Your task to perform on an android device: turn notification dots off Image 0: 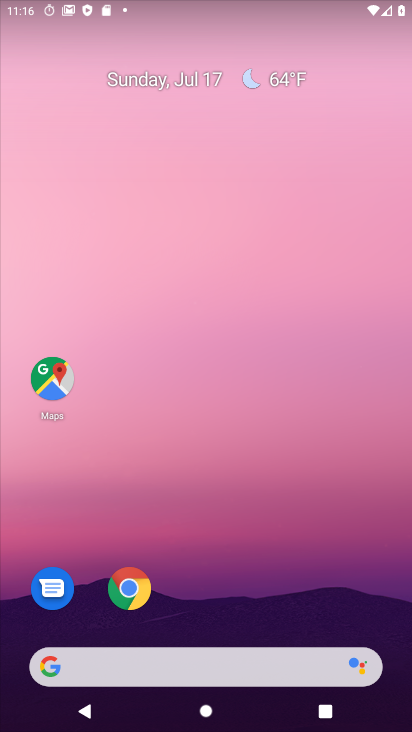
Step 0: drag from (210, 626) to (243, 294)
Your task to perform on an android device: turn notification dots off Image 1: 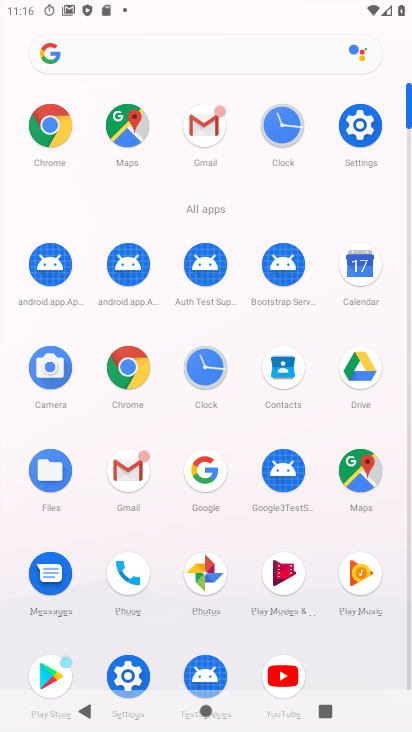
Step 1: click (124, 672)
Your task to perform on an android device: turn notification dots off Image 2: 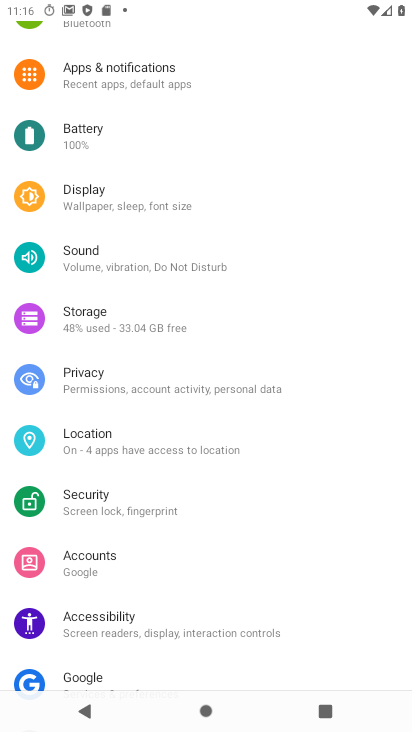
Step 2: click (141, 78)
Your task to perform on an android device: turn notification dots off Image 3: 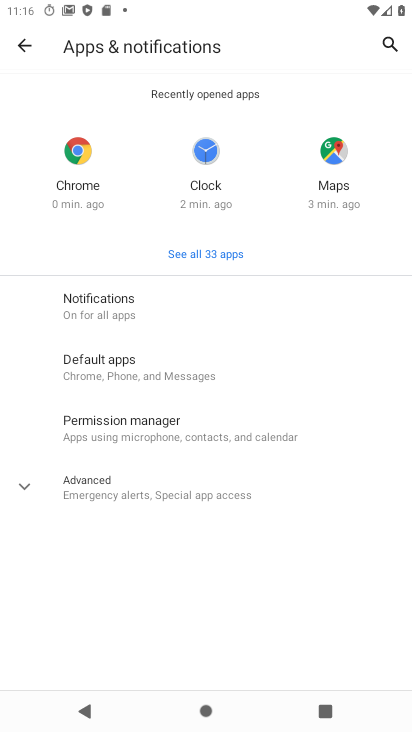
Step 3: click (128, 306)
Your task to perform on an android device: turn notification dots off Image 4: 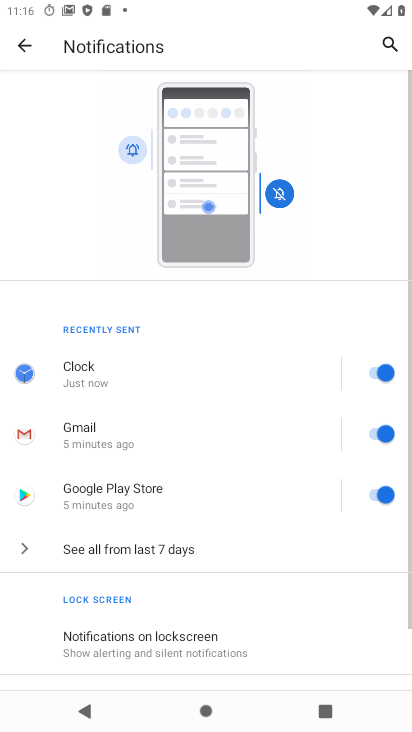
Step 4: drag from (179, 598) to (233, 255)
Your task to perform on an android device: turn notification dots off Image 5: 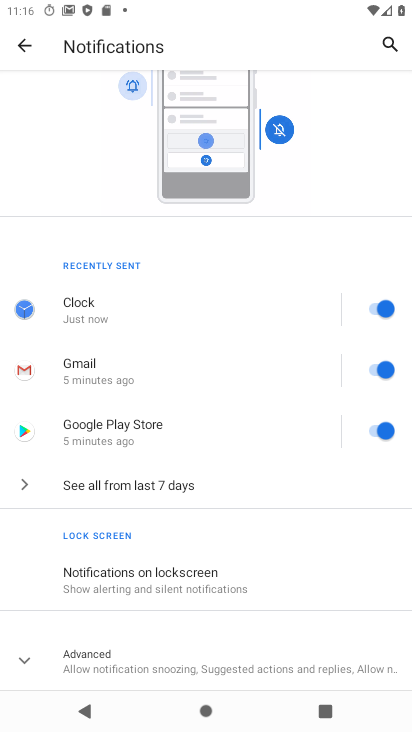
Step 5: click (169, 657)
Your task to perform on an android device: turn notification dots off Image 6: 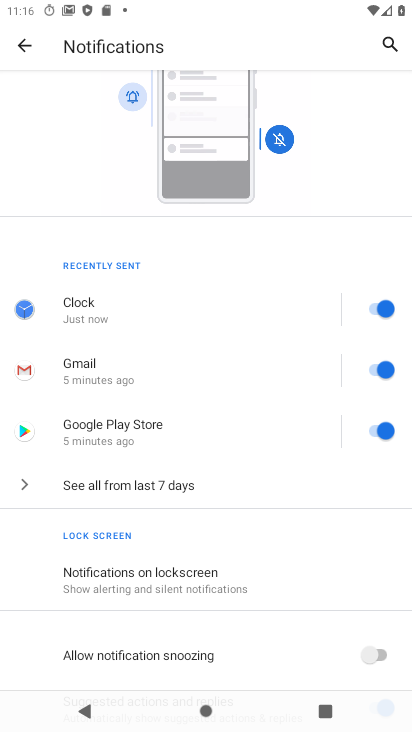
Step 6: drag from (163, 675) to (208, 377)
Your task to perform on an android device: turn notification dots off Image 7: 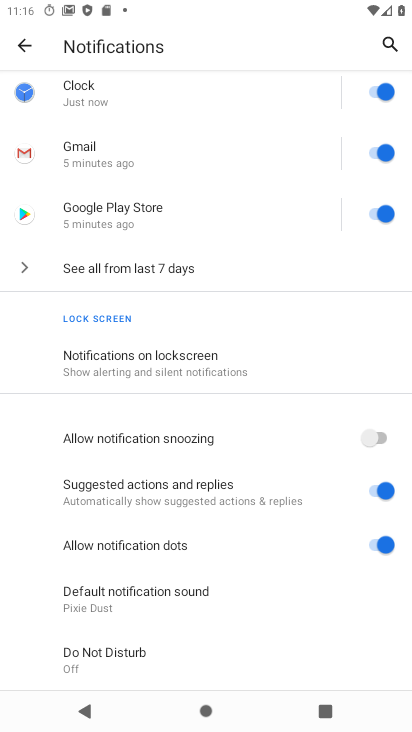
Step 7: click (368, 540)
Your task to perform on an android device: turn notification dots off Image 8: 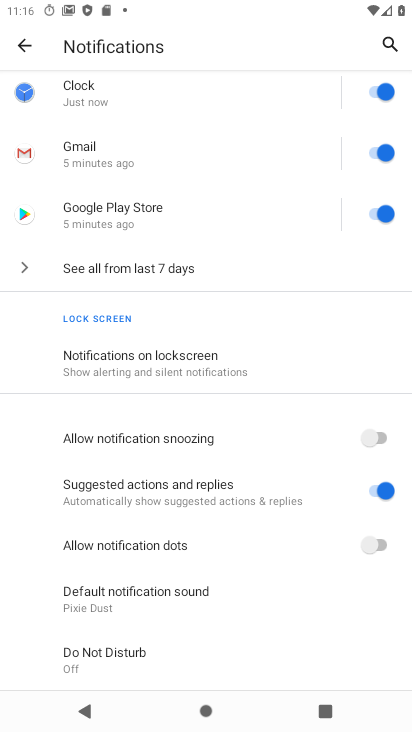
Step 8: task complete